Your task to perform on an android device: turn off wifi Image 0: 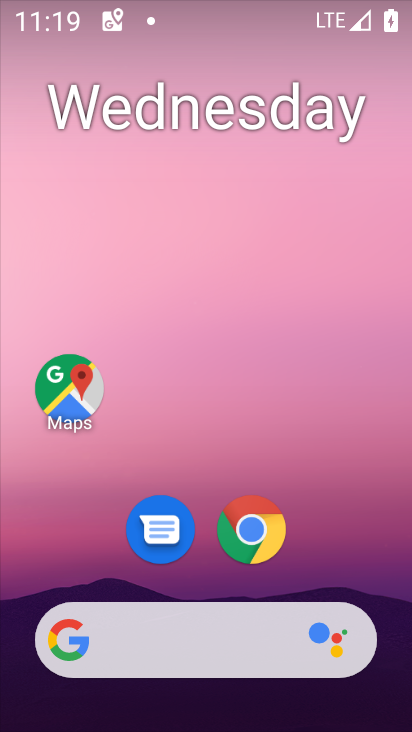
Step 0: drag from (400, 625) to (302, 49)
Your task to perform on an android device: turn off wifi Image 1: 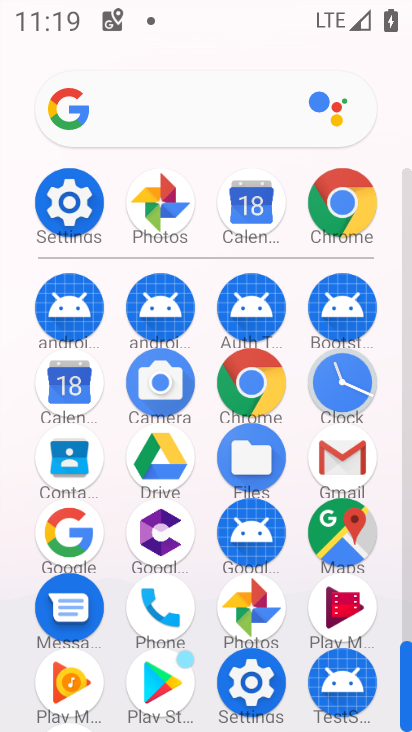
Step 1: click (247, 680)
Your task to perform on an android device: turn off wifi Image 2: 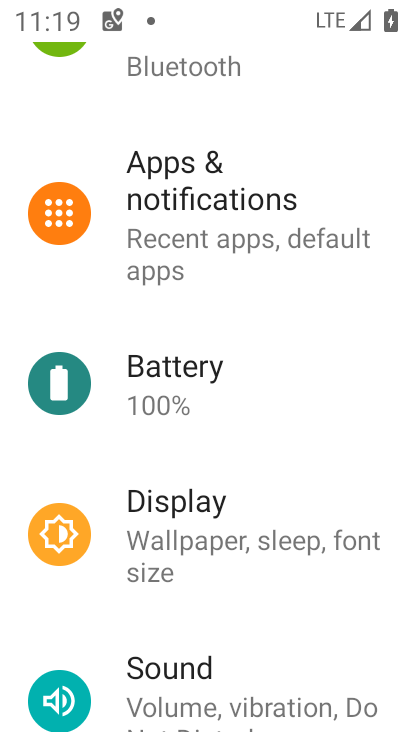
Step 2: drag from (371, 134) to (340, 506)
Your task to perform on an android device: turn off wifi Image 3: 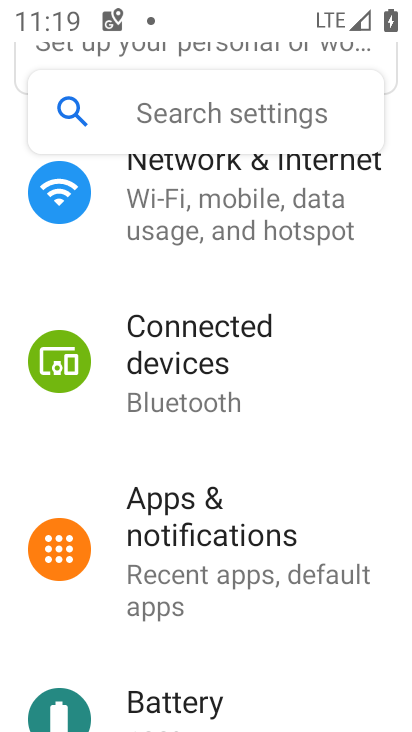
Step 3: click (209, 184)
Your task to perform on an android device: turn off wifi Image 4: 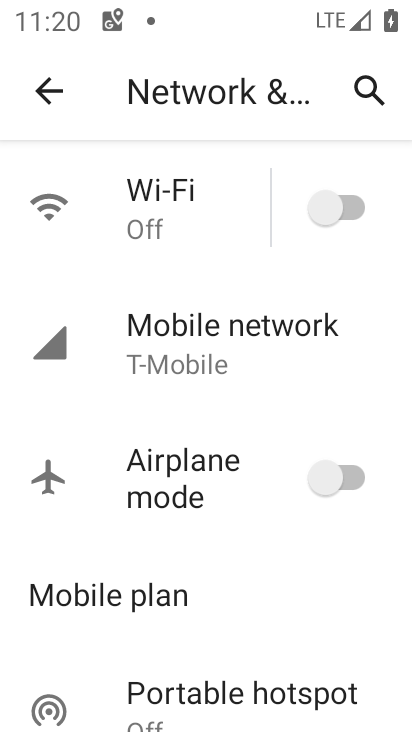
Step 4: task complete